Your task to perform on an android device: change text size in settings app Image 0: 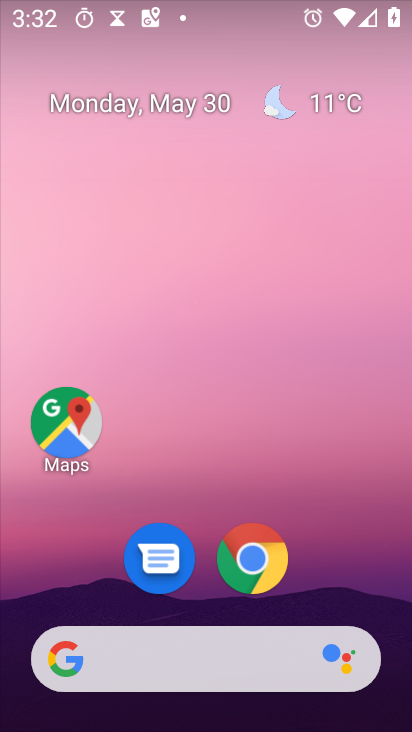
Step 0: drag from (212, 482) to (293, 167)
Your task to perform on an android device: change text size in settings app Image 1: 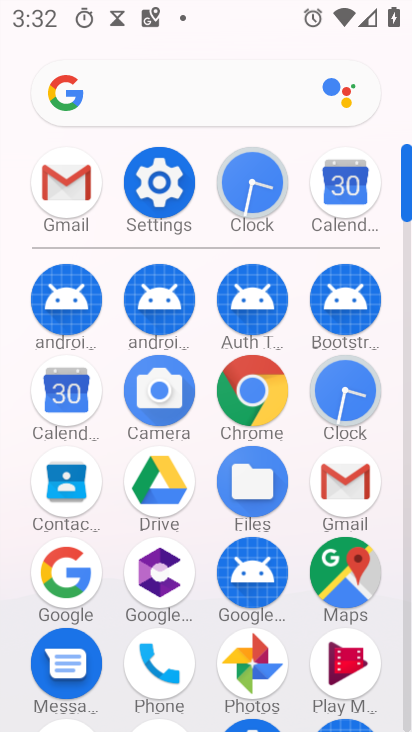
Step 1: click (152, 185)
Your task to perform on an android device: change text size in settings app Image 2: 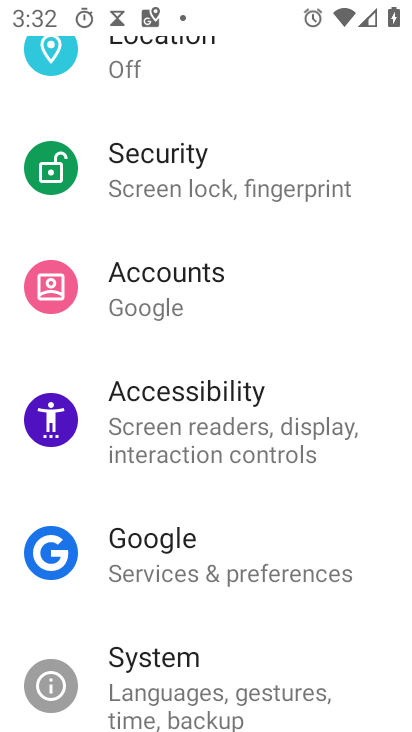
Step 2: drag from (222, 132) to (159, 714)
Your task to perform on an android device: change text size in settings app Image 3: 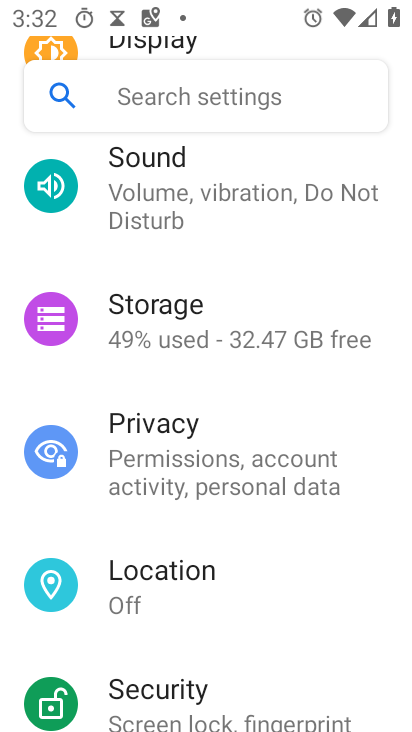
Step 3: click (152, 98)
Your task to perform on an android device: change text size in settings app Image 4: 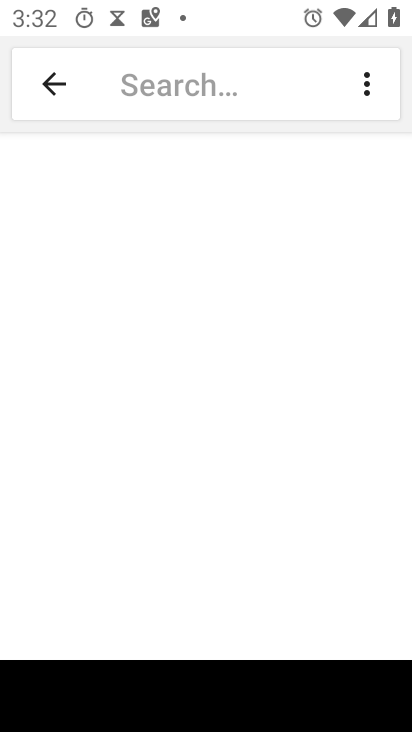
Step 4: click (152, 86)
Your task to perform on an android device: change text size in settings app Image 5: 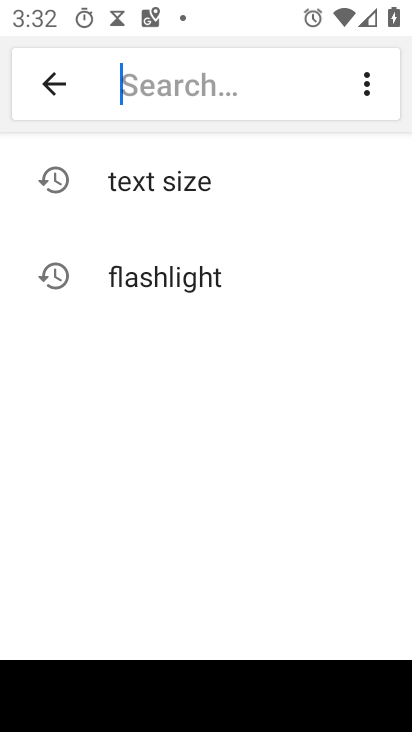
Step 5: click (162, 175)
Your task to perform on an android device: change text size in settings app Image 6: 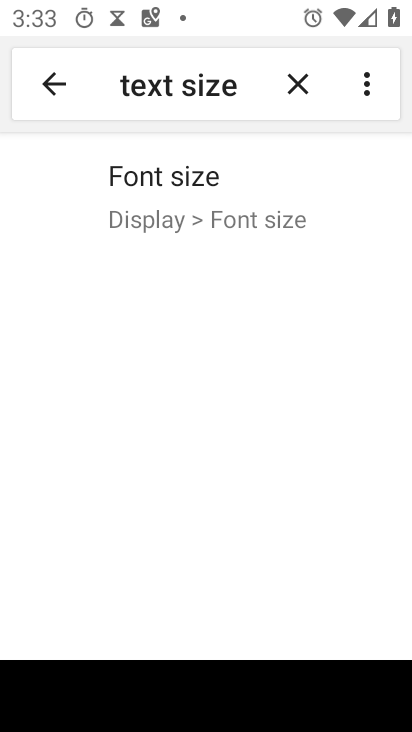
Step 6: click (161, 175)
Your task to perform on an android device: change text size in settings app Image 7: 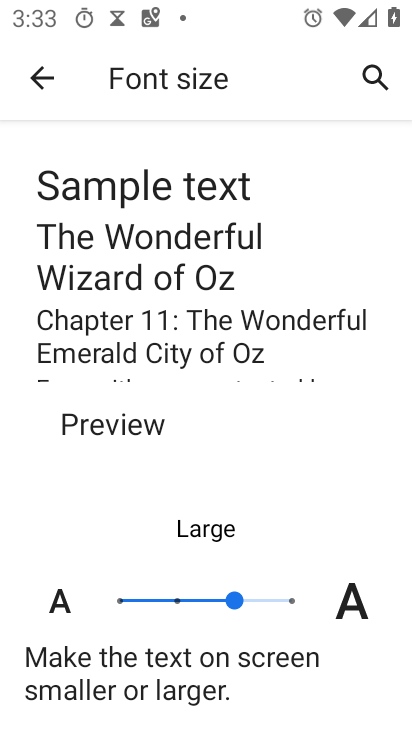
Step 7: task complete